Your task to perform on an android device: turn on wifi Image 0: 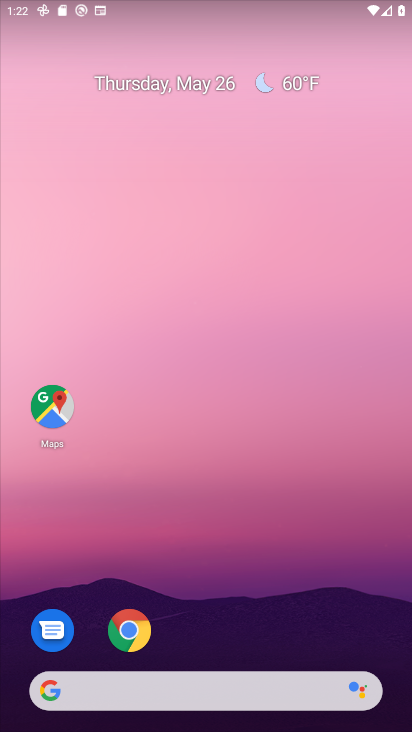
Step 0: drag from (283, 633) to (268, 61)
Your task to perform on an android device: turn on wifi Image 1: 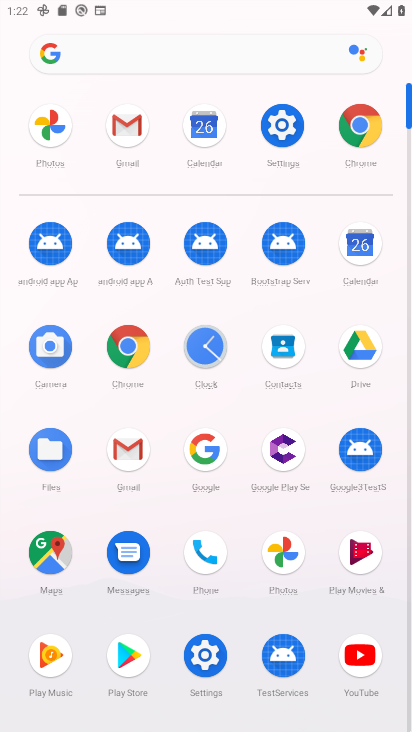
Step 1: click (262, 125)
Your task to perform on an android device: turn on wifi Image 2: 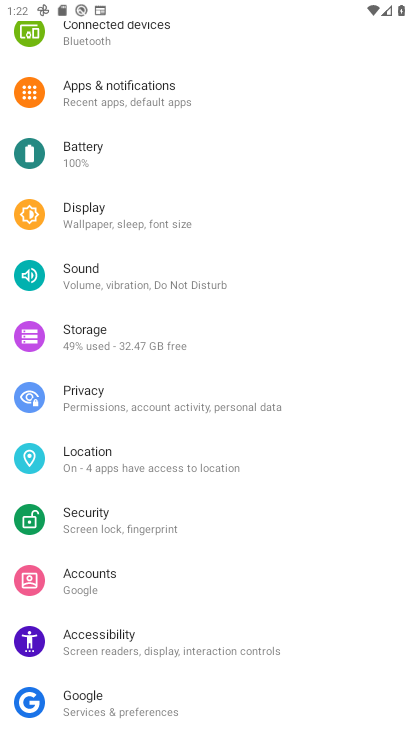
Step 2: drag from (182, 104) to (195, 616)
Your task to perform on an android device: turn on wifi Image 3: 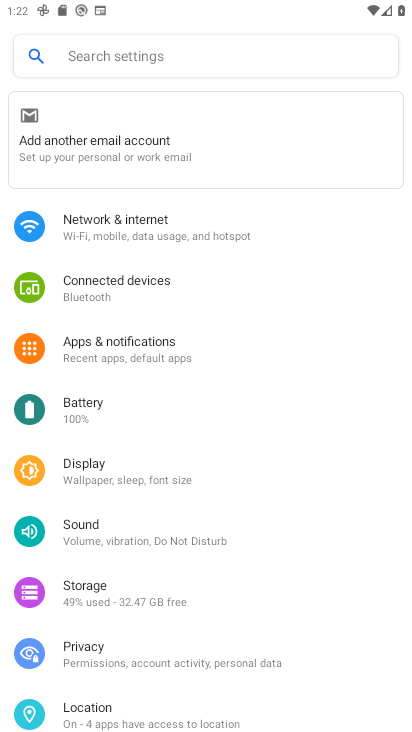
Step 3: click (91, 231)
Your task to perform on an android device: turn on wifi Image 4: 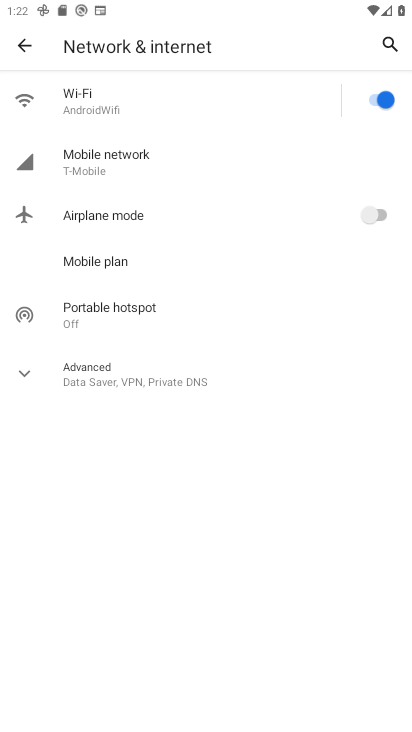
Step 4: task complete